Your task to perform on an android device: clear all cookies in the chrome app Image 0: 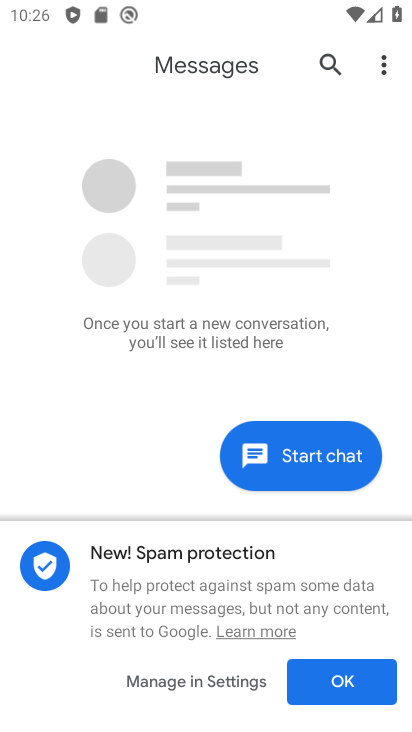
Step 0: press home button
Your task to perform on an android device: clear all cookies in the chrome app Image 1: 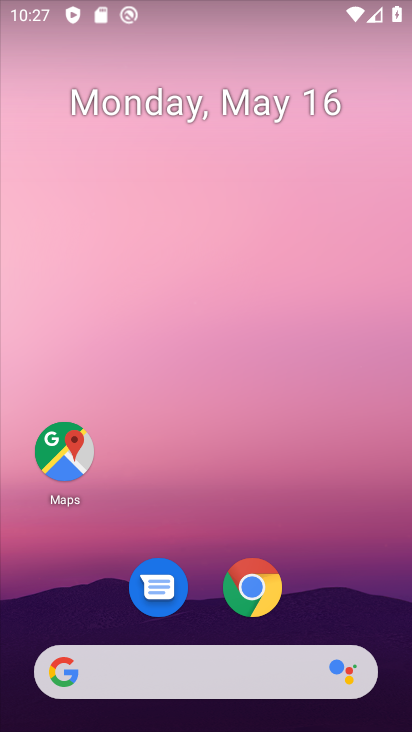
Step 1: drag from (384, 624) to (288, 62)
Your task to perform on an android device: clear all cookies in the chrome app Image 2: 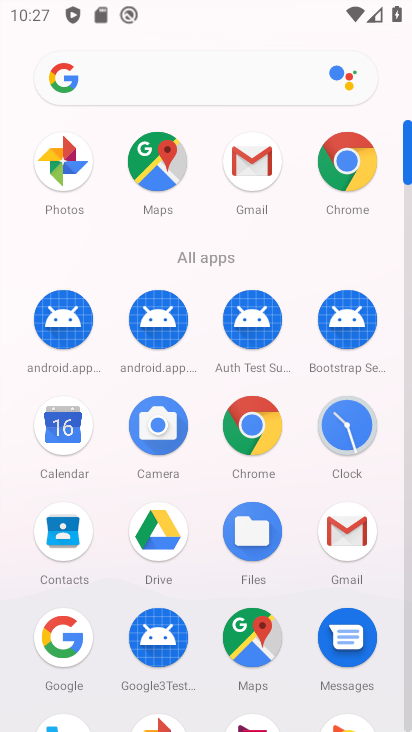
Step 2: click (254, 419)
Your task to perform on an android device: clear all cookies in the chrome app Image 3: 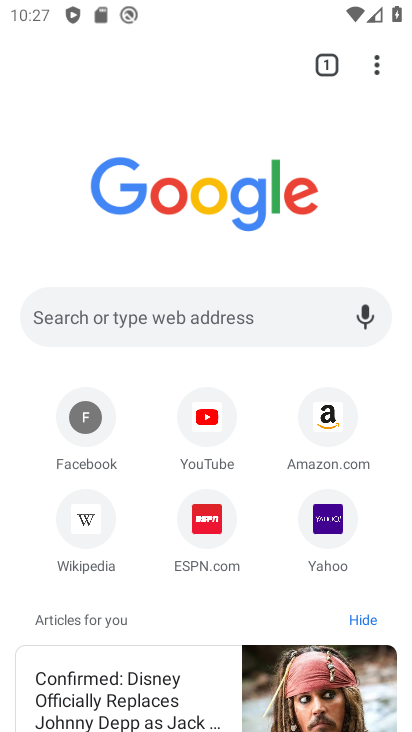
Step 3: click (376, 64)
Your task to perform on an android device: clear all cookies in the chrome app Image 4: 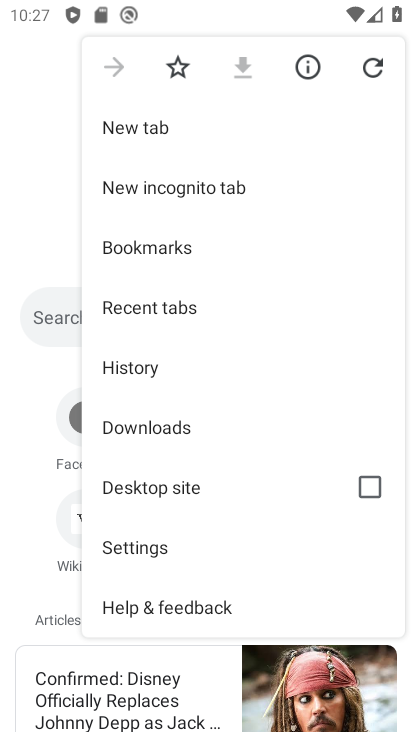
Step 4: click (176, 364)
Your task to perform on an android device: clear all cookies in the chrome app Image 5: 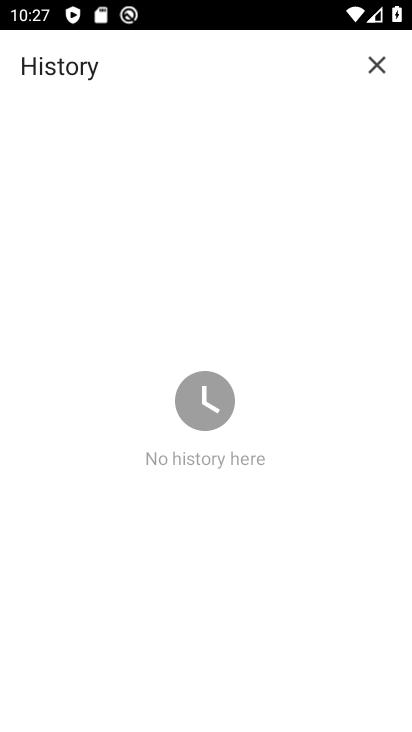
Step 5: task complete